Your task to perform on an android device: Open the phone app and click the voicemail tab. Image 0: 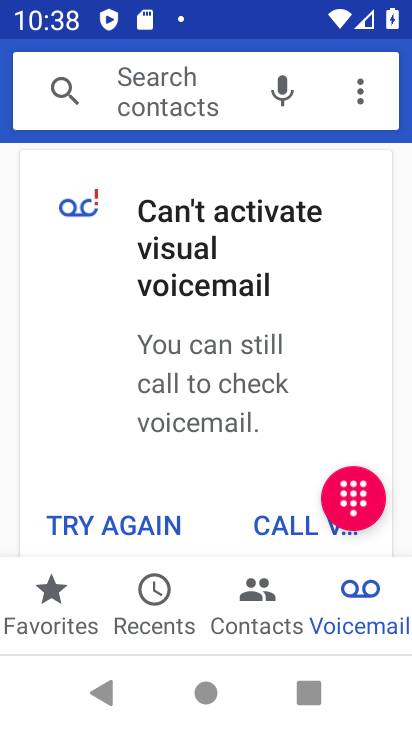
Step 0: press home button
Your task to perform on an android device: Open the phone app and click the voicemail tab. Image 1: 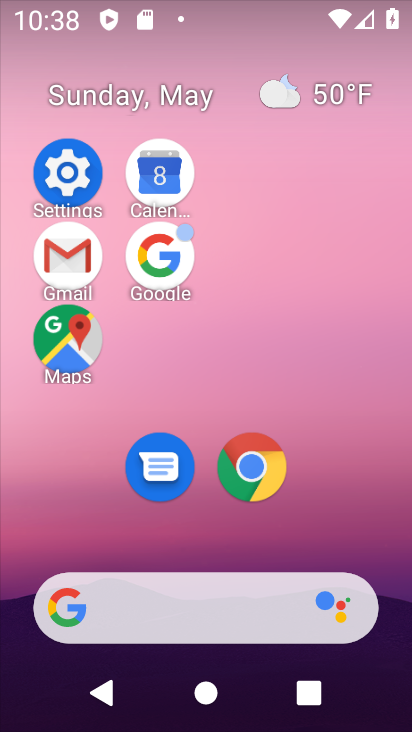
Step 1: drag from (240, 516) to (310, 199)
Your task to perform on an android device: Open the phone app and click the voicemail tab. Image 2: 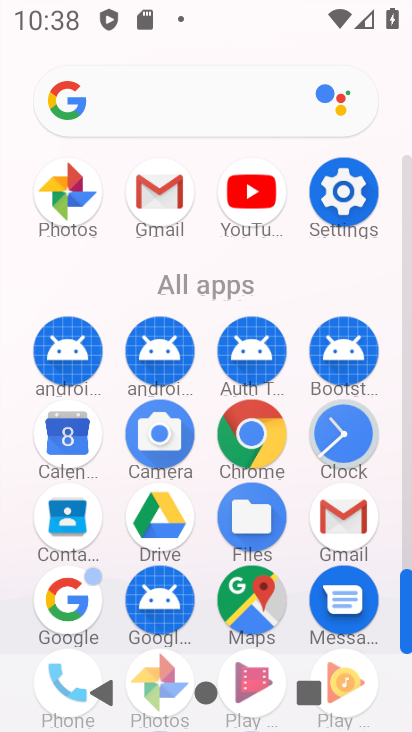
Step 2: drag from (237, 523) to (300, 154)
Your task to perform on an android device: Open the phone app and click the voicemail tab. Image 3: 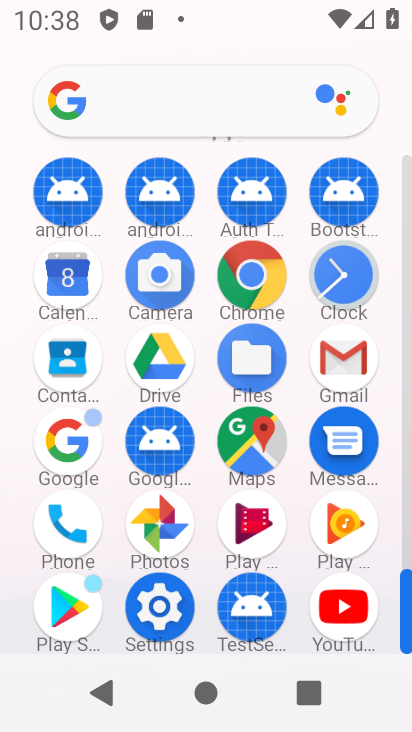
Step 3: click (74, 527)
Your task to perform on an android device: Open the phone app and click the voicemail tab. Image 4: 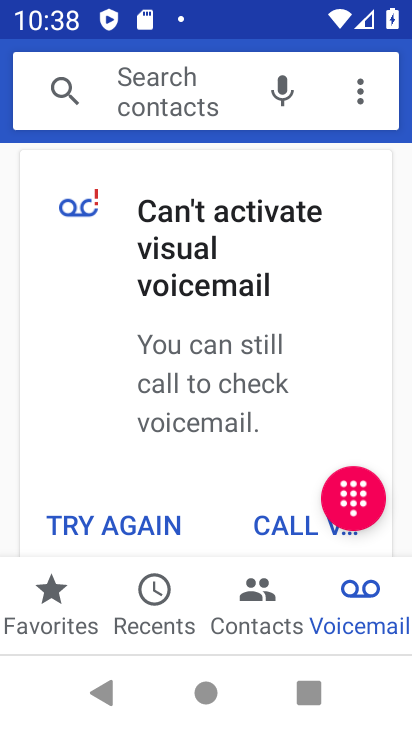
Step 4: click (354, 598)
Your task to perform on an android device: Open the phone app and click the voicemail tab. Image 5: 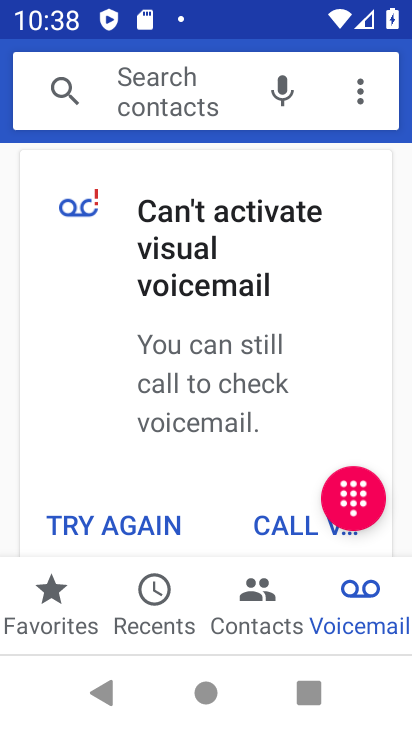
Step 5: task complete